Your task to perform on an android device: find photos in the google photos app Image 0: 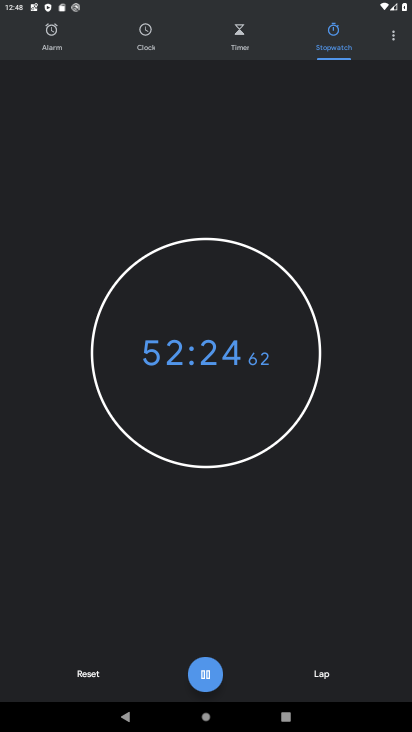
Step 0: press home button
Your task to perform on an android device: find photos in the google photos app Image 1: 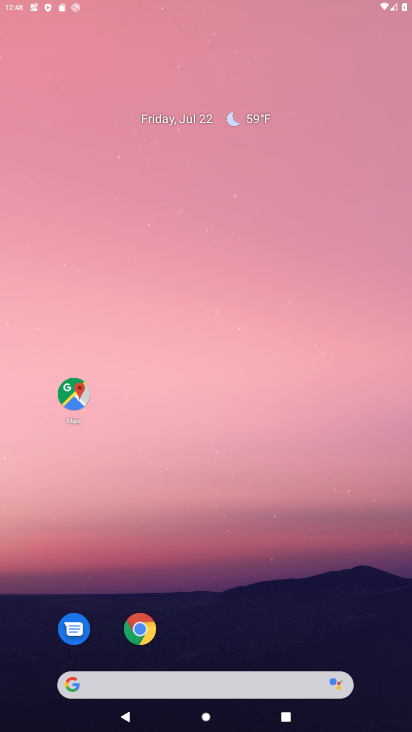
Step 1: drag from (263, 690) to (257, 225)
Your task to perform on an android device: find photos in the google photos app Image 2: 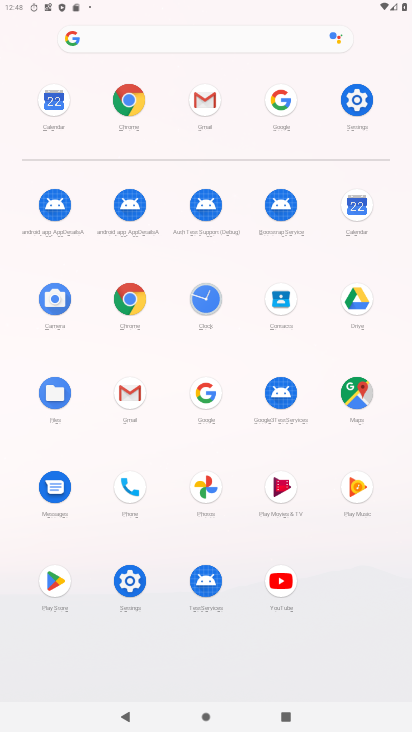
Step 2: click (207, 488)
Your task to perform on an android device: find photos in the google photos app Image 3: 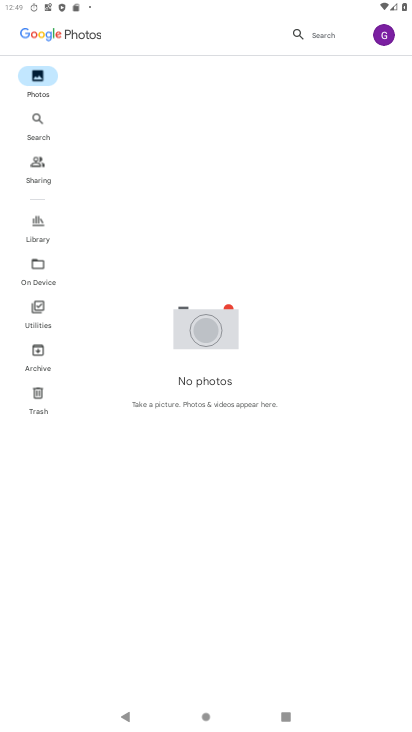
Step 3: task complete